Your task to perform on an android device: move an email to a new category in the gmail app Image 0: 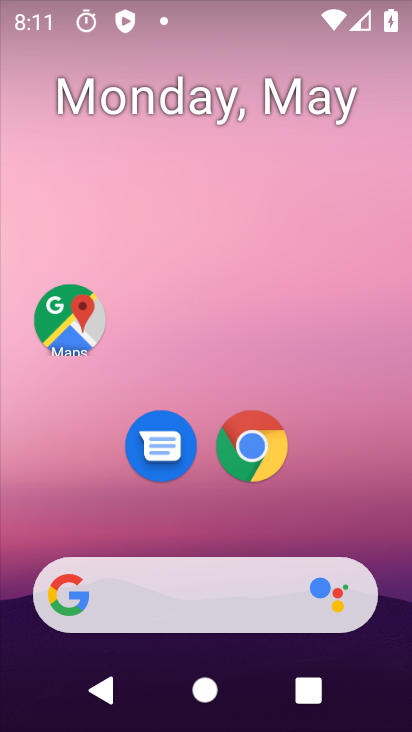
Step 0: drag from (372, 542) to (249, 7)
Your task to perform on an android device: move an email to a new category in the gmail app Image 1: 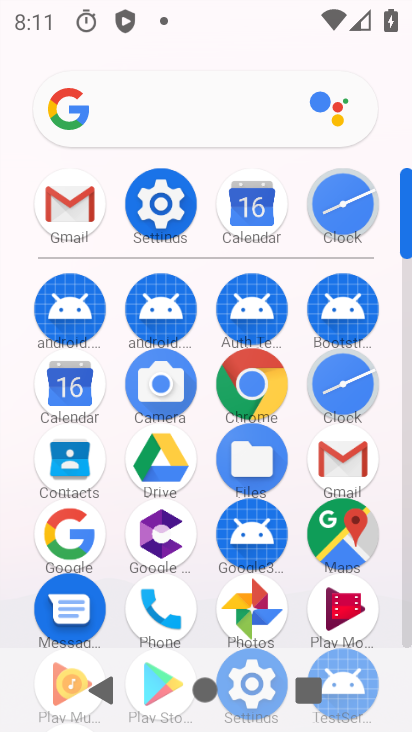
Step 1: click (74, 203)
Your task to perform on an android device: move an email to a new category in the gmail app Image 2: 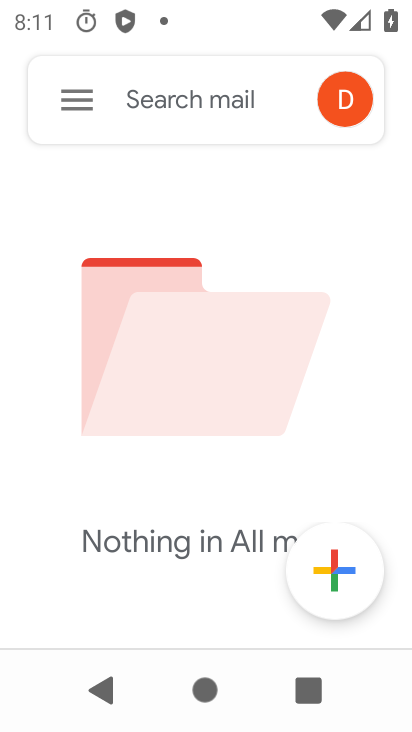
Step 2: task complete